Your task to perform on an android device: Go to Reddit.com Image 0: 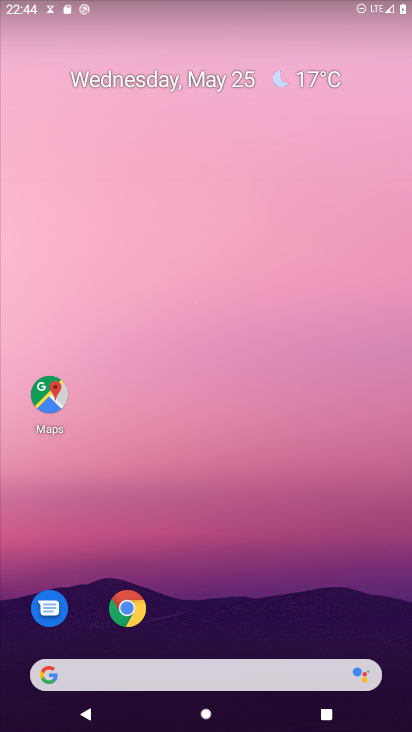
Step 0: click (131, 610)
Your task to perform on an android device: Go to Reddit.com Image 1: 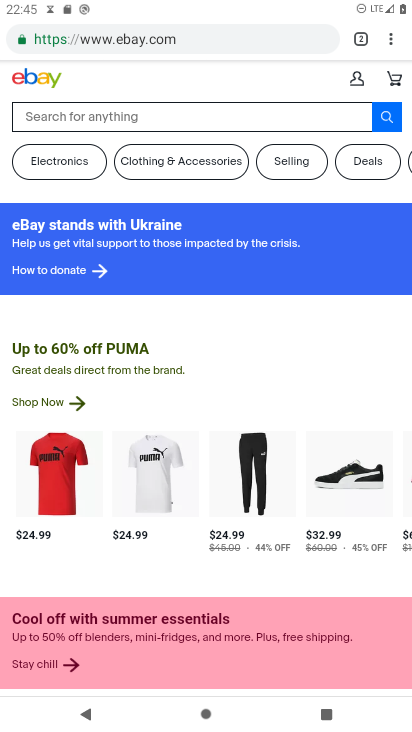
Step 1: click (363, 38)
Your task to perform on an android device: Go to Reddit.com Image 2: 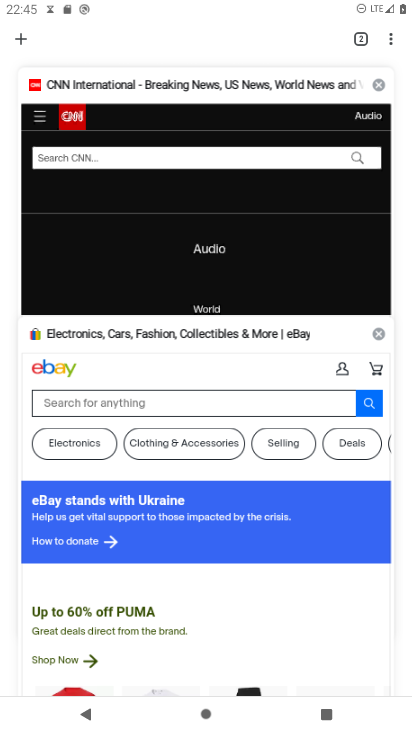
Step 2: click (23, 45)
Your task to perform on an android device: Go to Reddit.com Image 3: 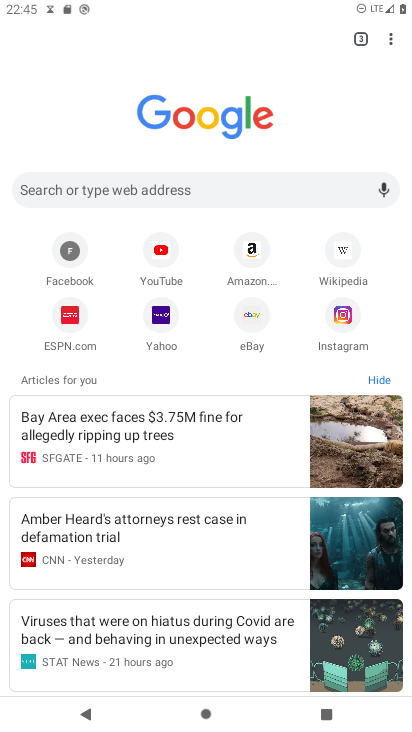
Step 3: click (202, 195)
Your task to perform on an android device: Go to Reddit.com Image 4: 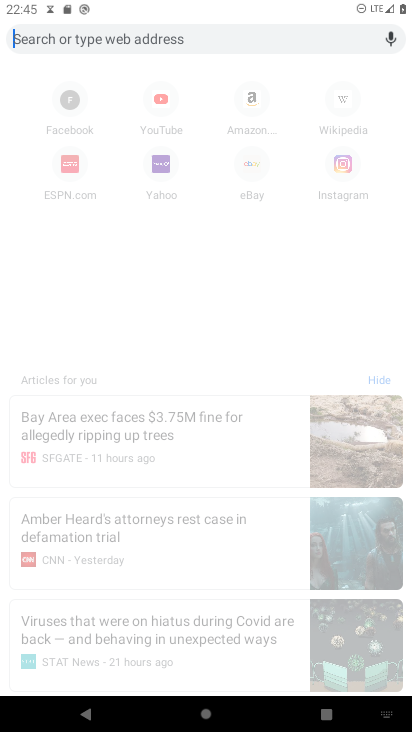
Step 4: type "Reddit.com"
Your task to perform on an android device: Go to Reddit.com Image 5: 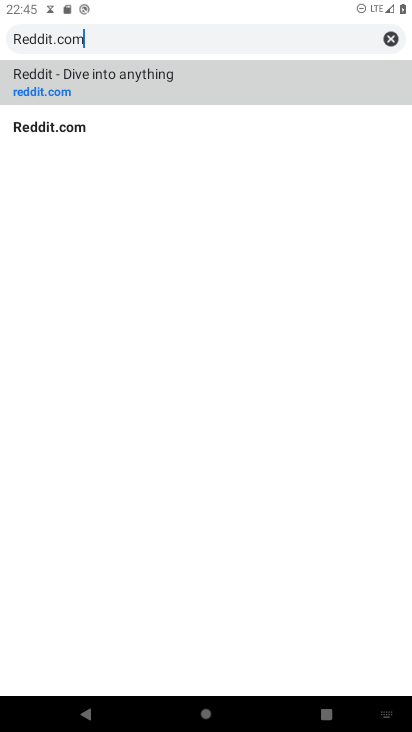
Step 5: click (158, 87)
Your task to perform on an android device: Go to Reddit.com Image 6: 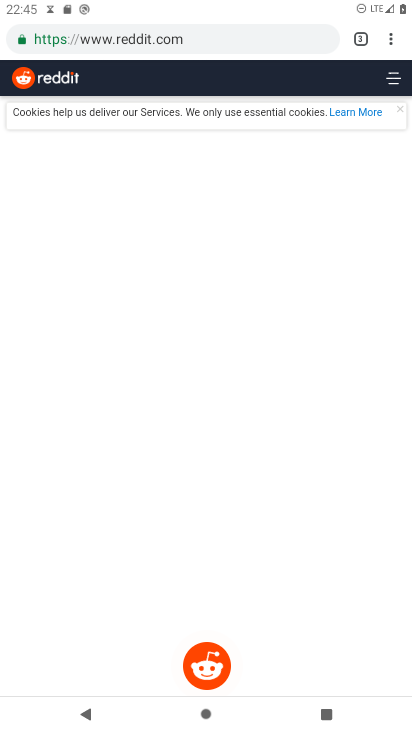
Step 6: task complete